Your task to perform on an android device: Go to wifi settings Image 0: 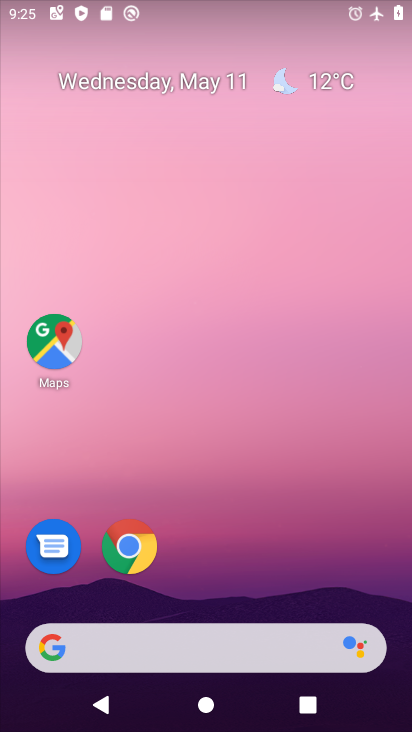
Step 0: drag from (398, 638) to (292, 192)
Your task to perform on an android device: Go to wifi settings Image 1: 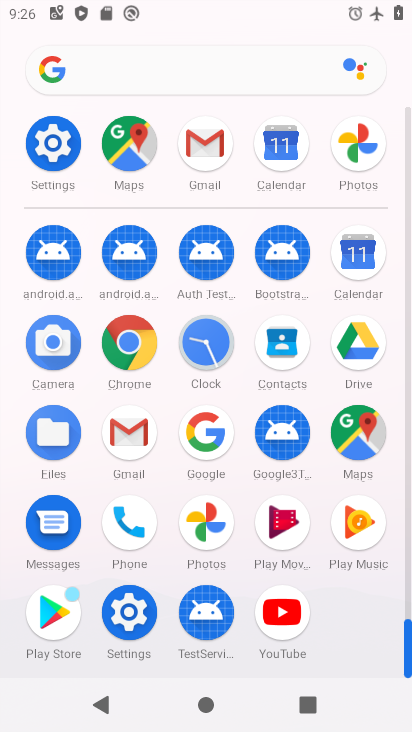
Step 1: click (132, 613)
Your task to perform on an android device: Go to wifi settings Image 2: 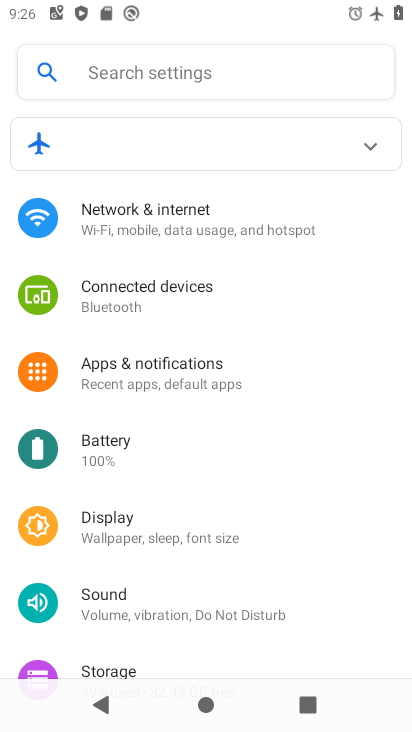
Step 2: click (121, 211)
Your task to perform on an android device: Go to wifi settings Image 3: 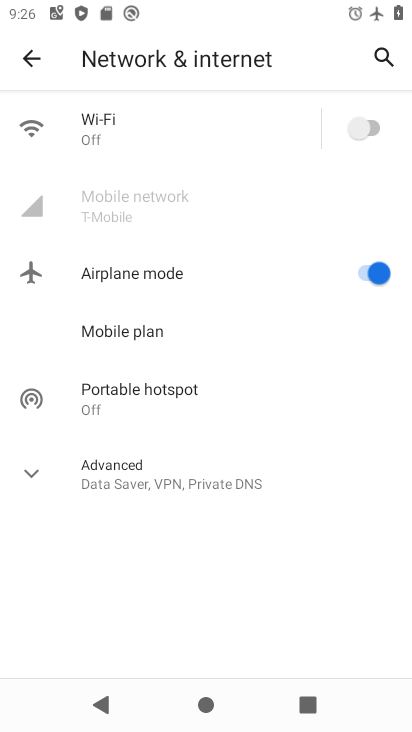
Step 3: click (94, 122)
Your task to perform on an android device: Go to wifi settings Image 4: 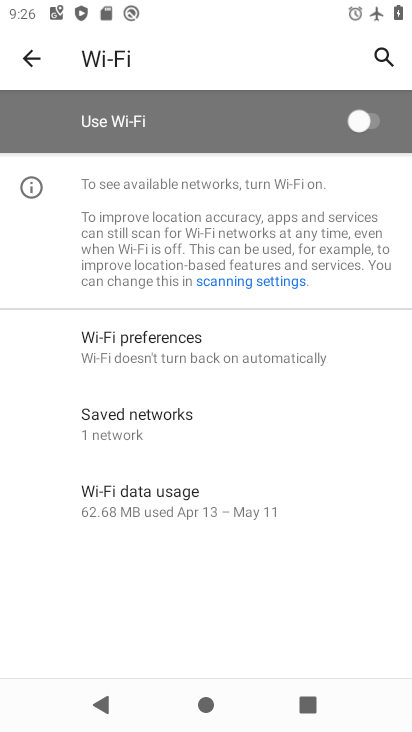
Step 4: task complete